Your task to perform on an android device: Add "logitech g pro" to the cart on costco.com, then select checkout. Image 0: 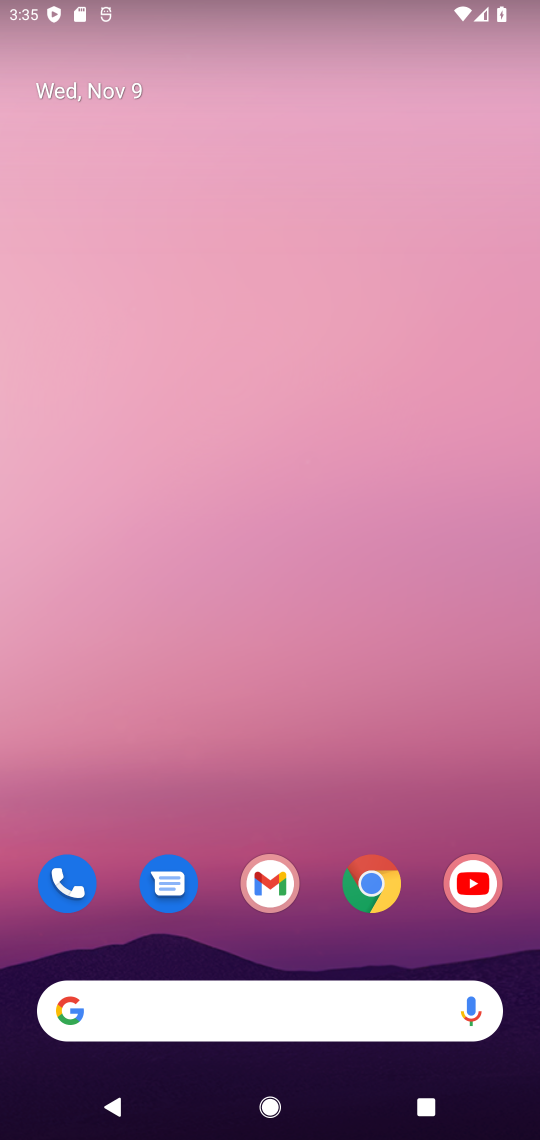
Step 0: click (369, 881)
Your task to perform on an android device: Add "logitech g pro" to the cart on costco.com, then select checkout. Image 1: 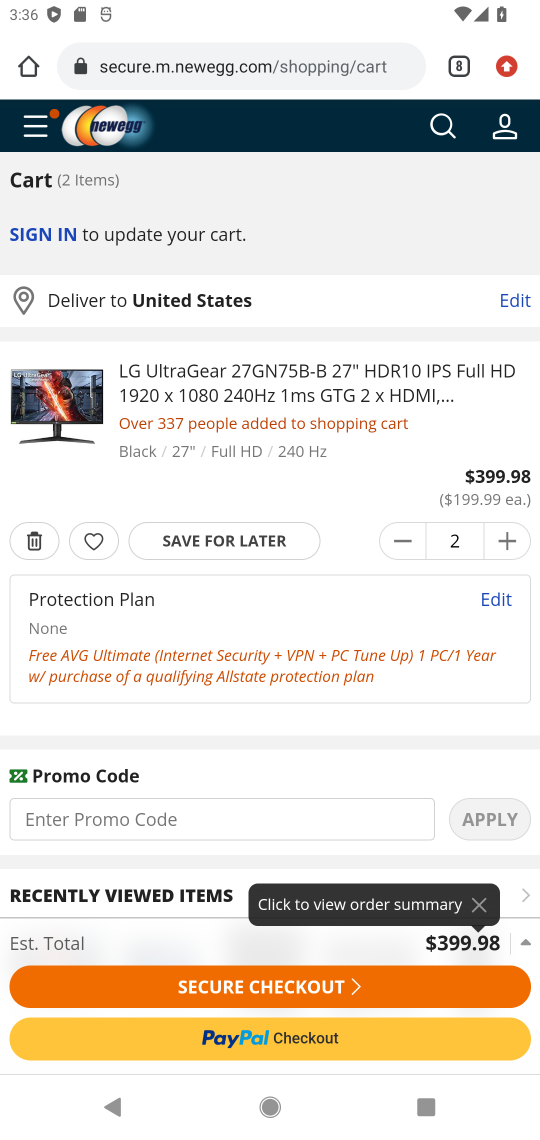
Step 1: press home button
Your task to perform on an android device: Add "logitech g pro" to the cart on costco.com, then select checkout. Image 2: 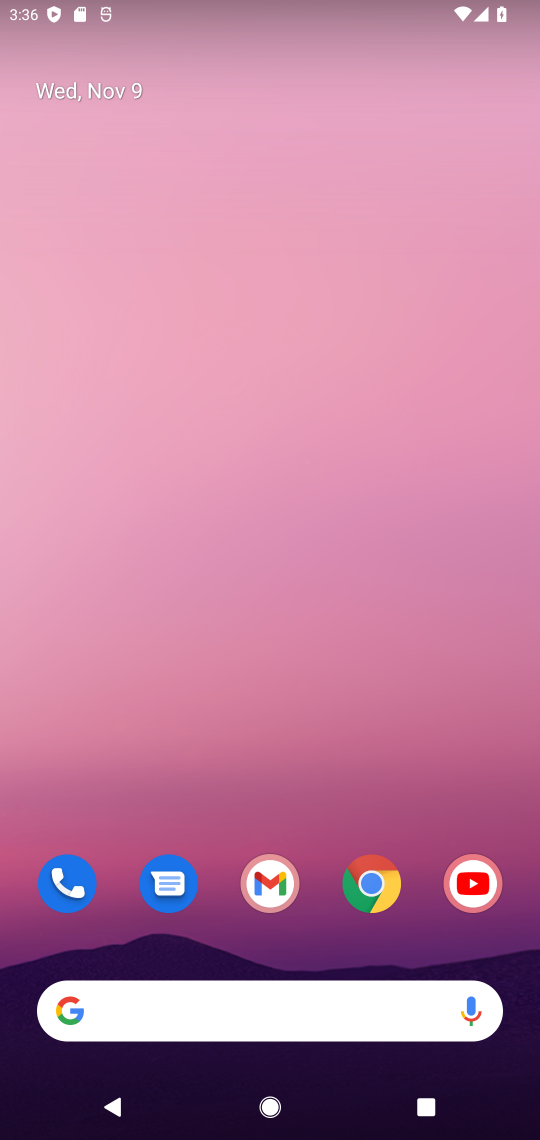
Step 2: click (370, 885)
Your task to perform on an android device: Add "logitech g pro" to the cart on costco.com, then select checkout. Image 3: 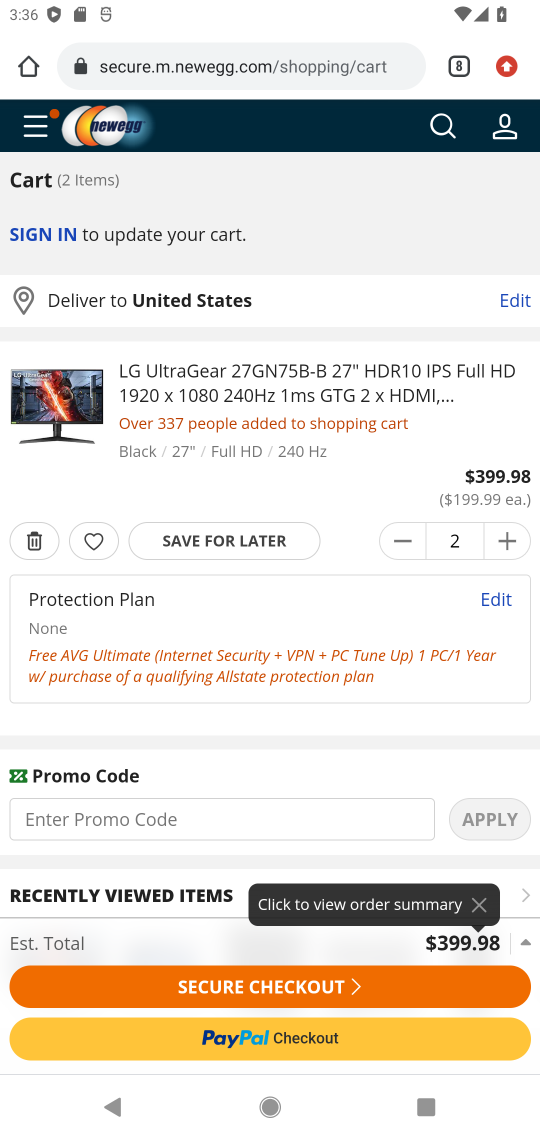
Step 3: click (468, 71)
Your task to perform on an android device: Add "logitech g pro" to the cart on costco.com, then select checkout. Image 4: 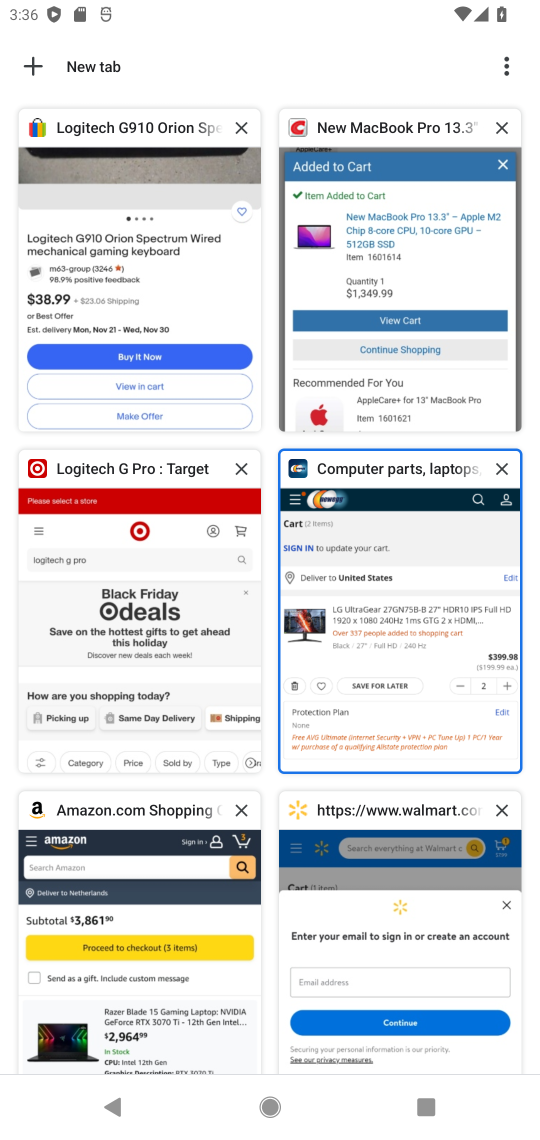
Step 4: click (364, 219)
Your task to perform on an android device: Add "logitech g pro" to the cart on costco.com, then select checkout. Image 5: 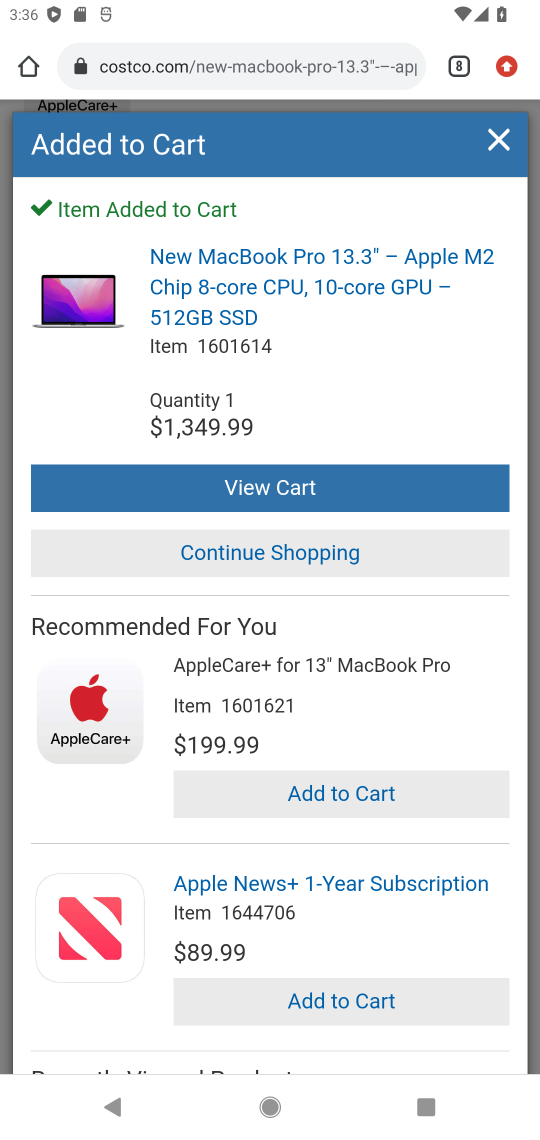
Step 5: click (491, 144)
Your task to perform on an android device: Add "logitech g pro" to the cart on costco.com, then select checkout. Image 6: 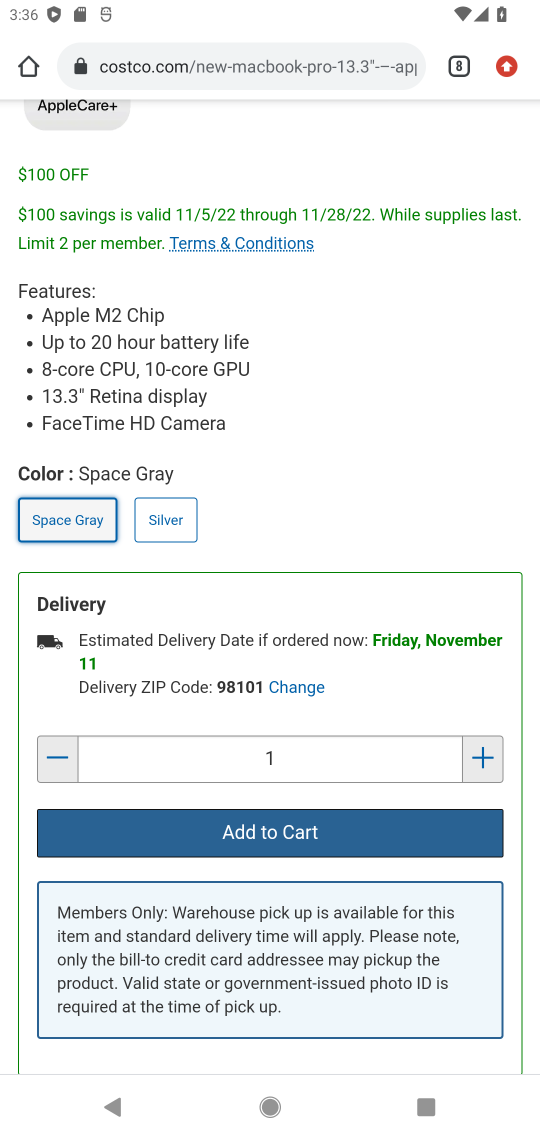
Step 6: drag from (305, 157) to (280, 863)
Your task to perform on an android device: Add "logitech g pro" to the cart on costco.com, then select checkout. Image 7: 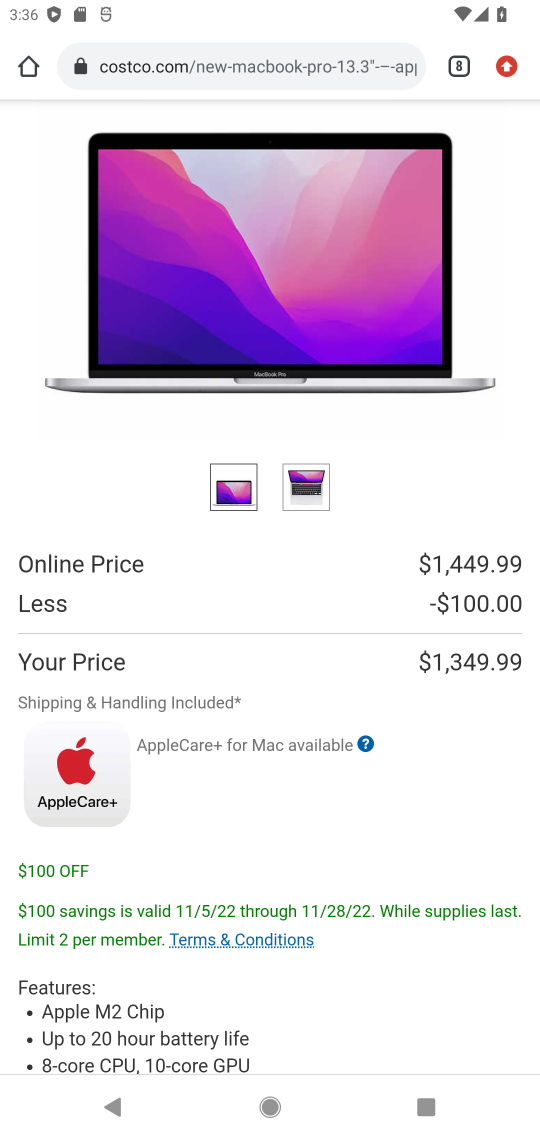
Step 7: drag from (482, 284) to (331, 1106)
Your task to perform on an android device: Add "logitech g pro" to the cart on costco.com, then select checkout. Image 8: 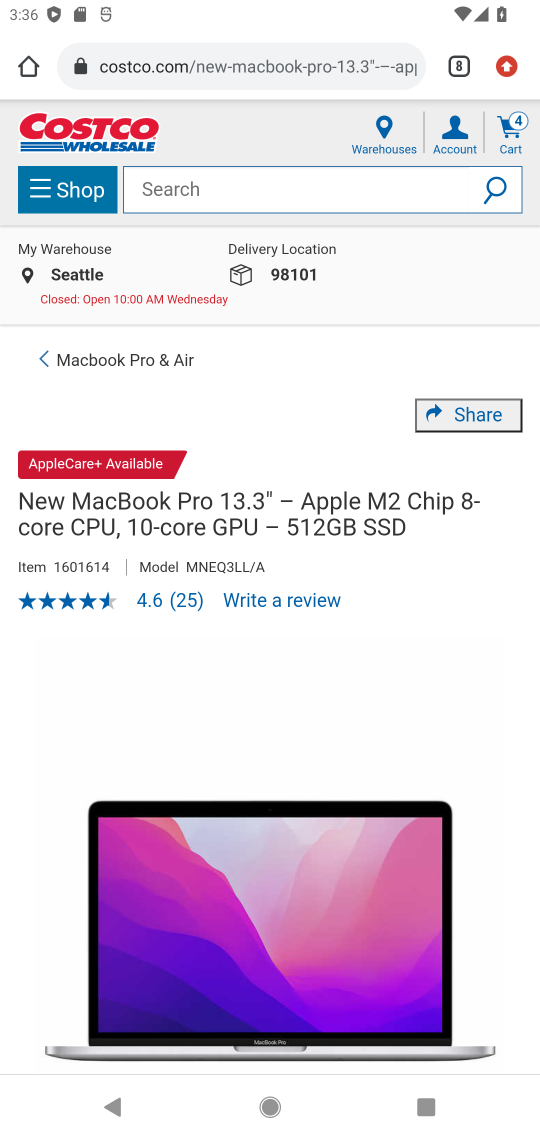
Step 8: click (222, 179)
Your task to perform on an android device: Add "logitech g pro" to the cart on costco.com, then select checkout. Image 9: 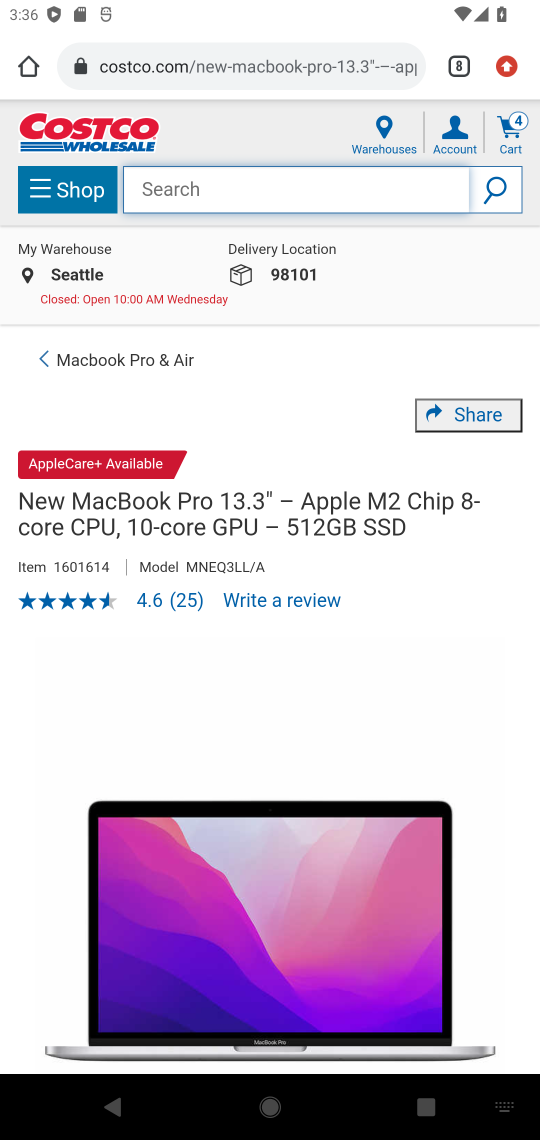
Step 9: type "logitech g pro"
Your task to perform on an android device: Add "logitech g pro" to the cart on costco.com, then select checkout. Image 10: 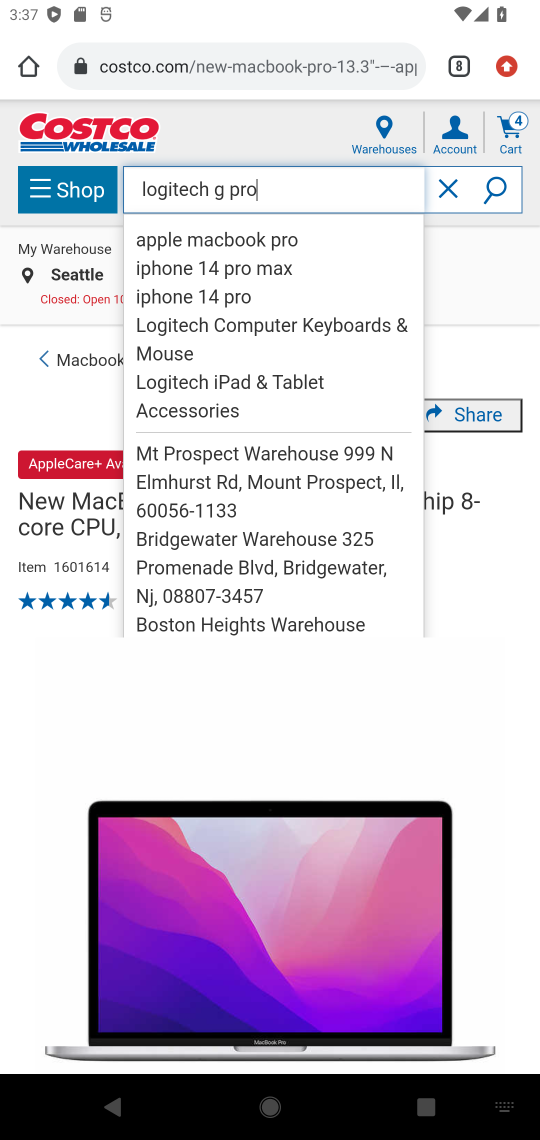
Step 10: click (500, 181)
Your task to perform on an android device: Add "logitech g pro" to the cart on costco.com, then select checkout. Image 11: 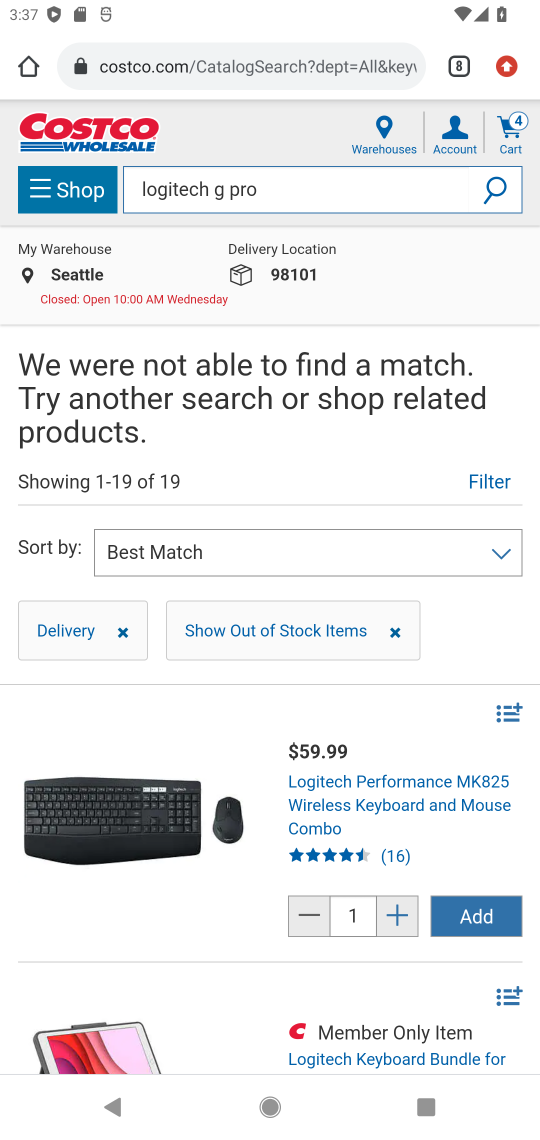
Step 11: drag from (455, 1002) to (491, 446)
Your task to perform on an android device: Add "logitech g pro" to the cart on costco.com, then select checkout. Image 12: 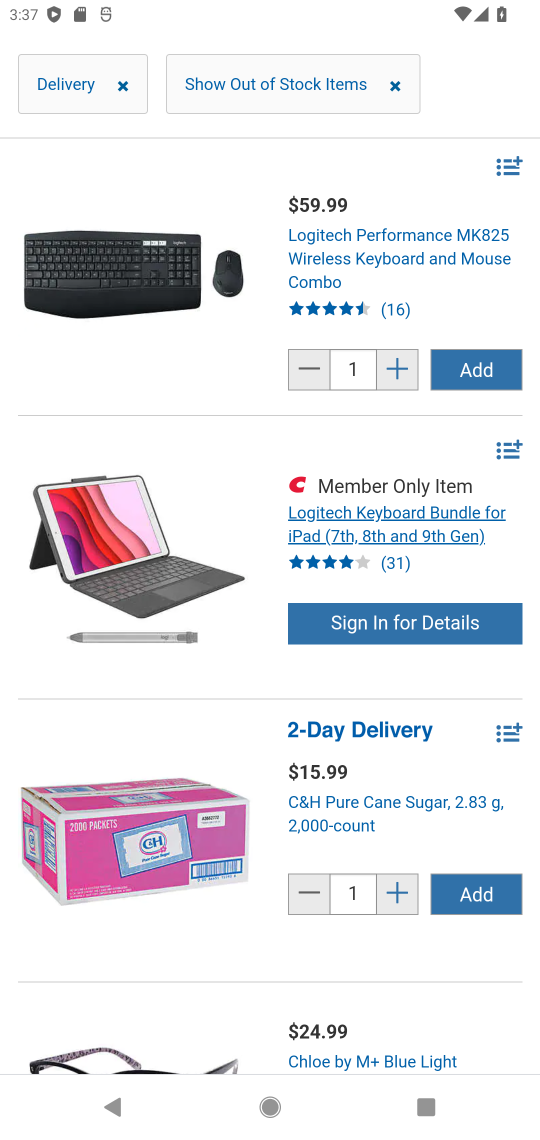
Step 12: drag from (441, 834) to (425, 598)
Your task to perform on an android device: Add "logitech g pro" to the cart on costco.com, then select checkout. Image 13: 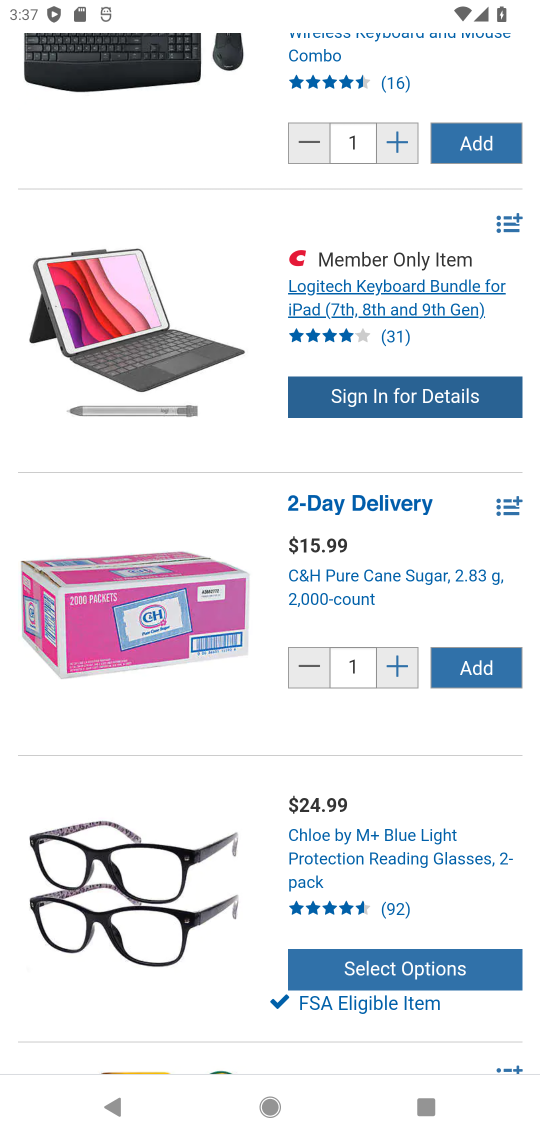
Step 13: click (479, 138)
Your task to perform on an android device: Add "logitech g pro" to the cart on costco.com, then select checkout. Image 14: 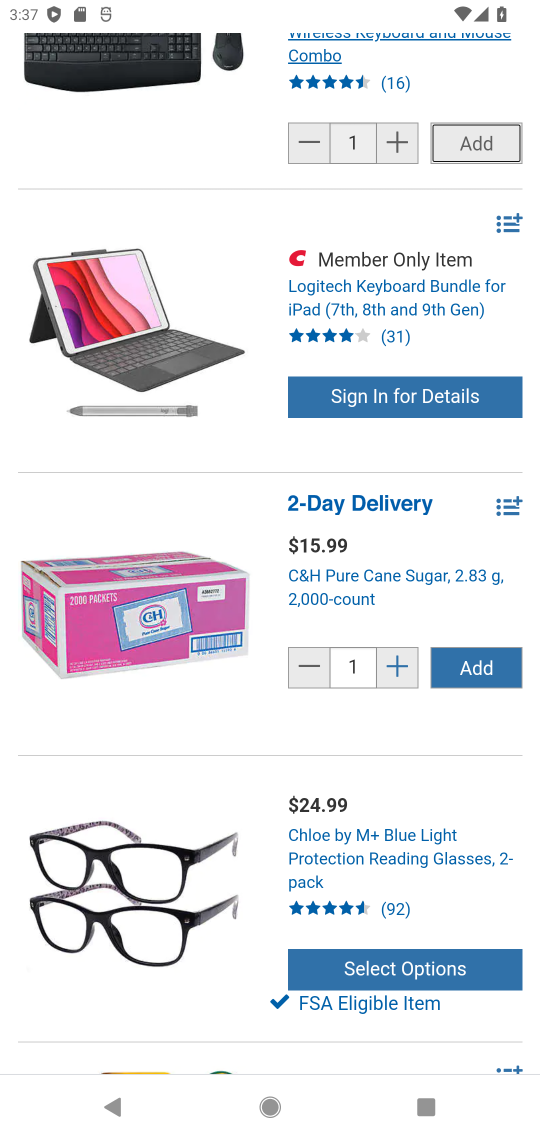
Step 14: task complete